Your task to perform on an android device: Set an alarm for 6am Image 0: 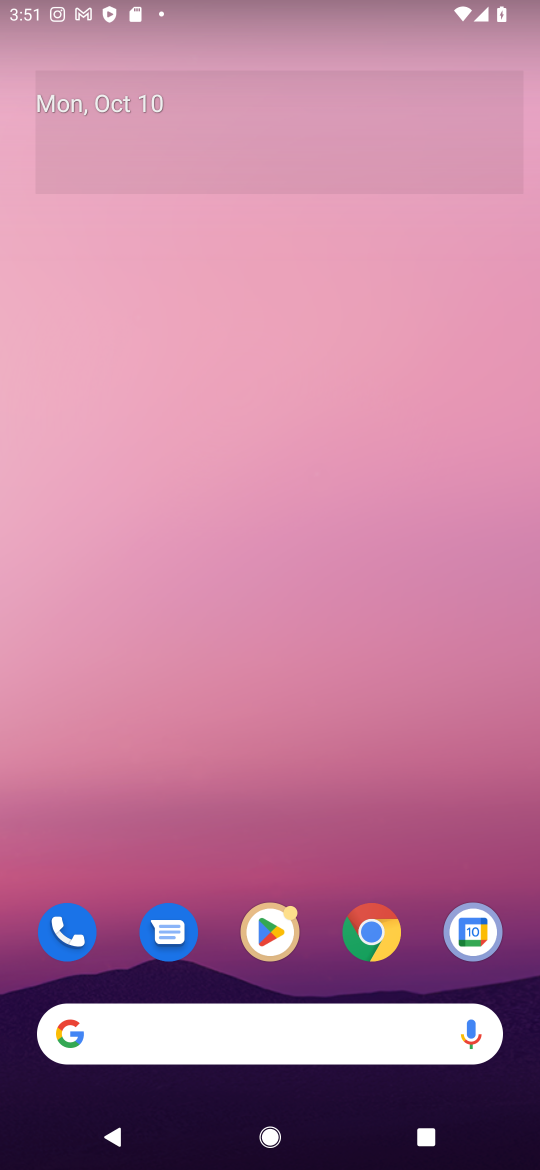
Step 0: press home button
Your task to perform on an android device: Set an alarm for 6am Image 1: 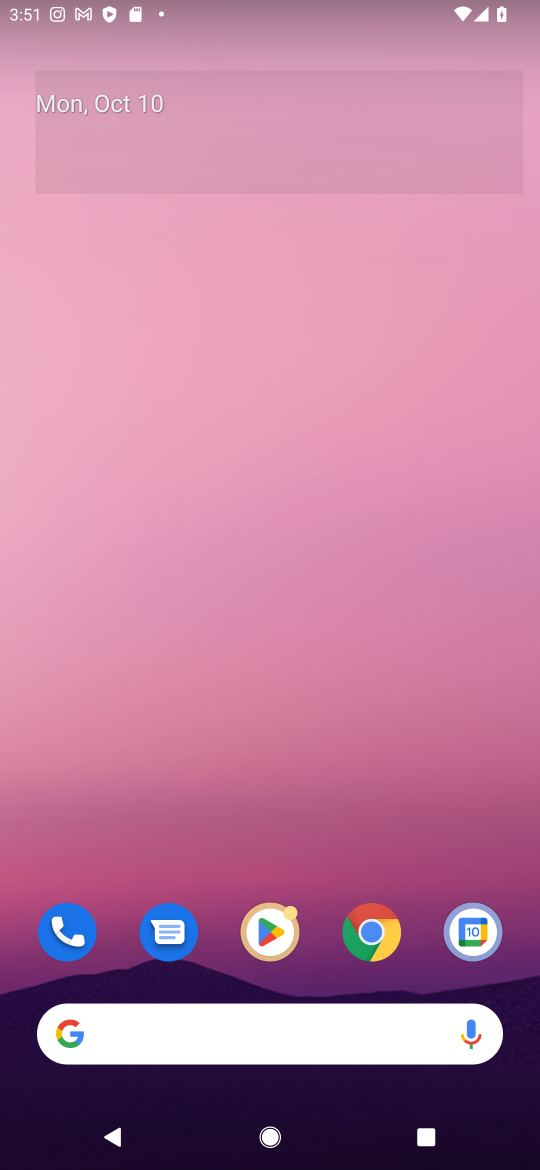
Step 1: drag from (485, 757) to (417, 146)
Your task to perform on an android device: Set an alarm for 6am Image 2: 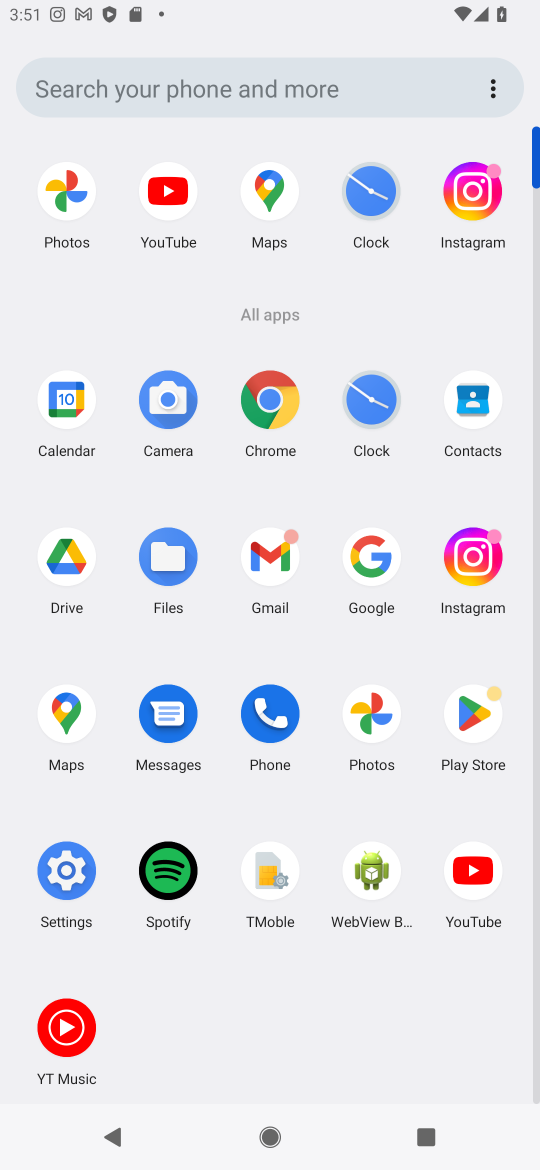
Step 2: click (371, 406)
Your task to perform on an android device: Set an alarm for 6am Image 3: 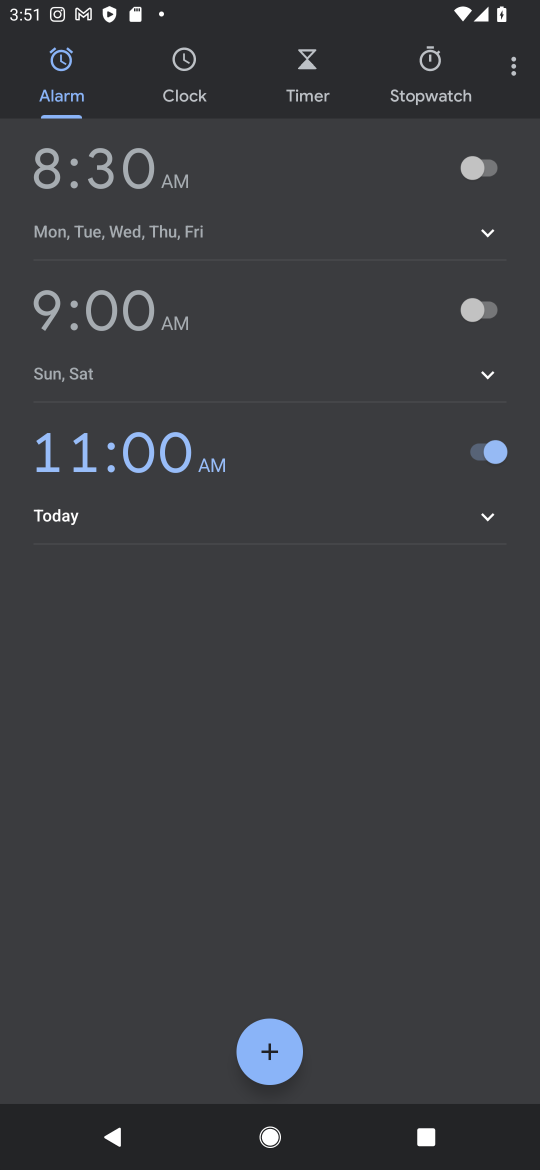
Step 3: click (278, 1046)
Your task to perform on an android device: Set an alarm for 6am Image 4: 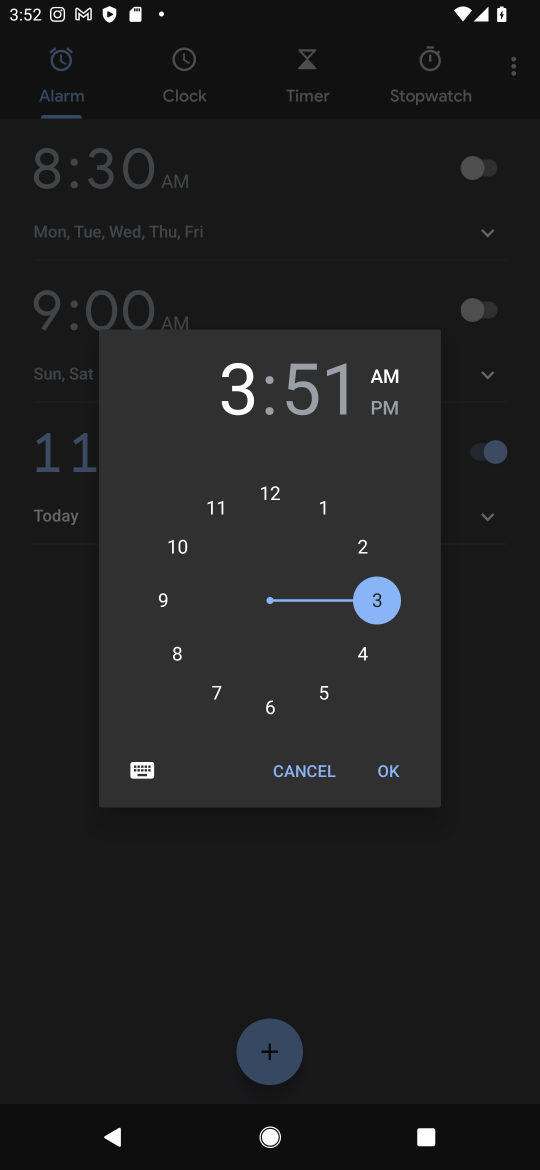
Step 4: click (269, 708)
Your task to perform on an android device: Set an alarm for 6am Image 5: 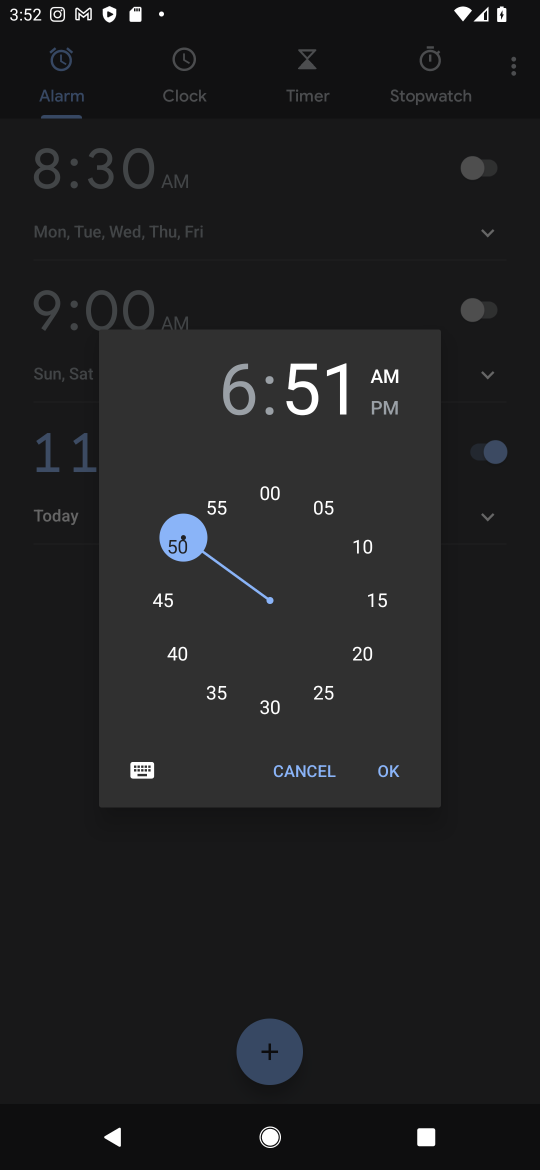
Step 5: click (271, 504)
Your task to perform on an android device: Set an alarm for 6am Image 6: 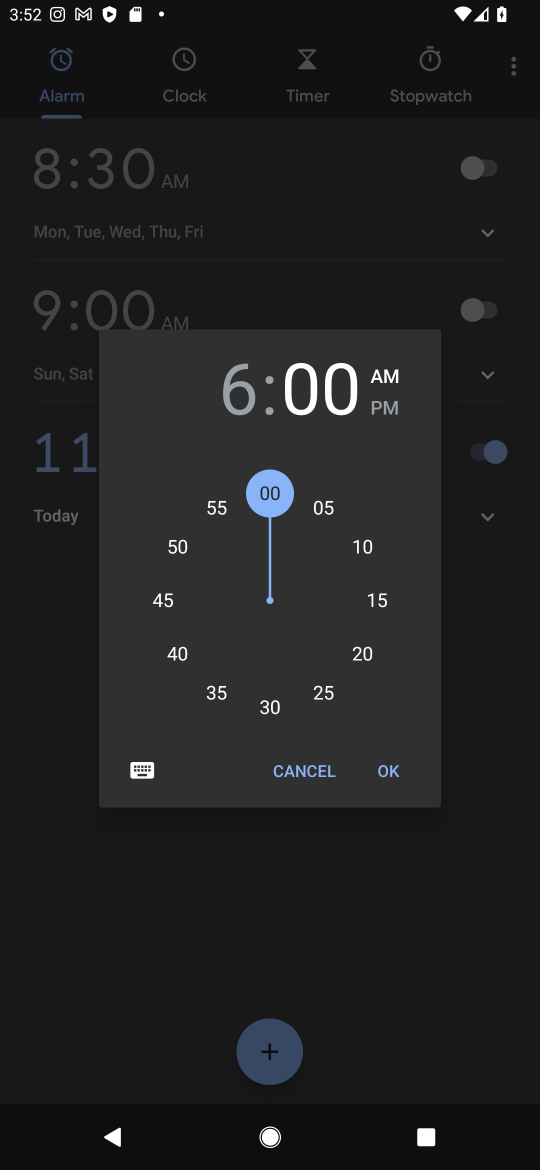
Step 6: click (381, 776)
Your task to perform on an android device: Set an alarm for 6am Image 7: 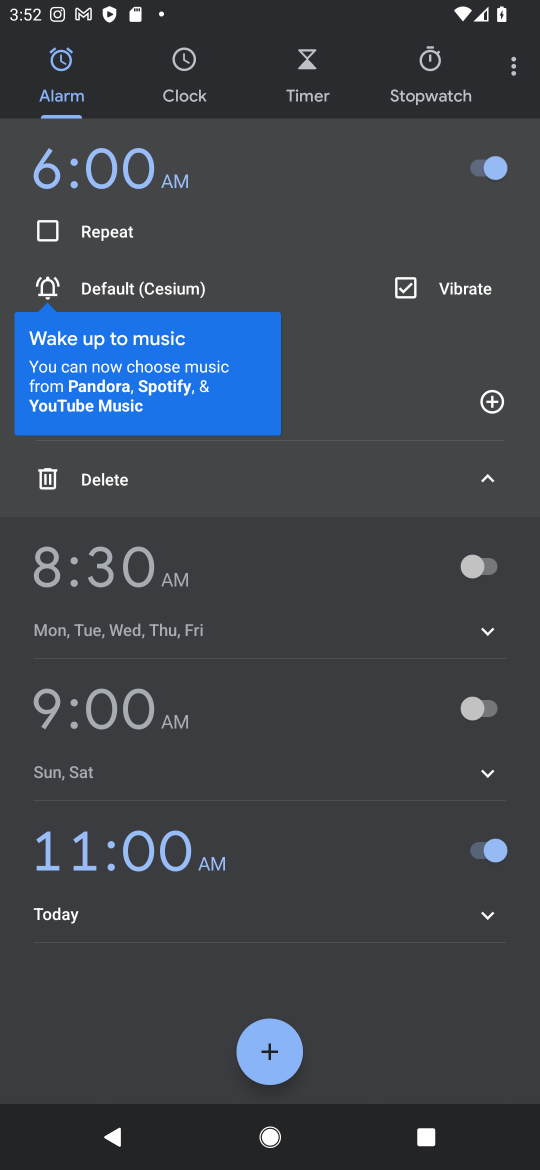
Step 7: task complete